Your task to perform on an android device: Open Google Chrome and open the bookmarks view Image 0: 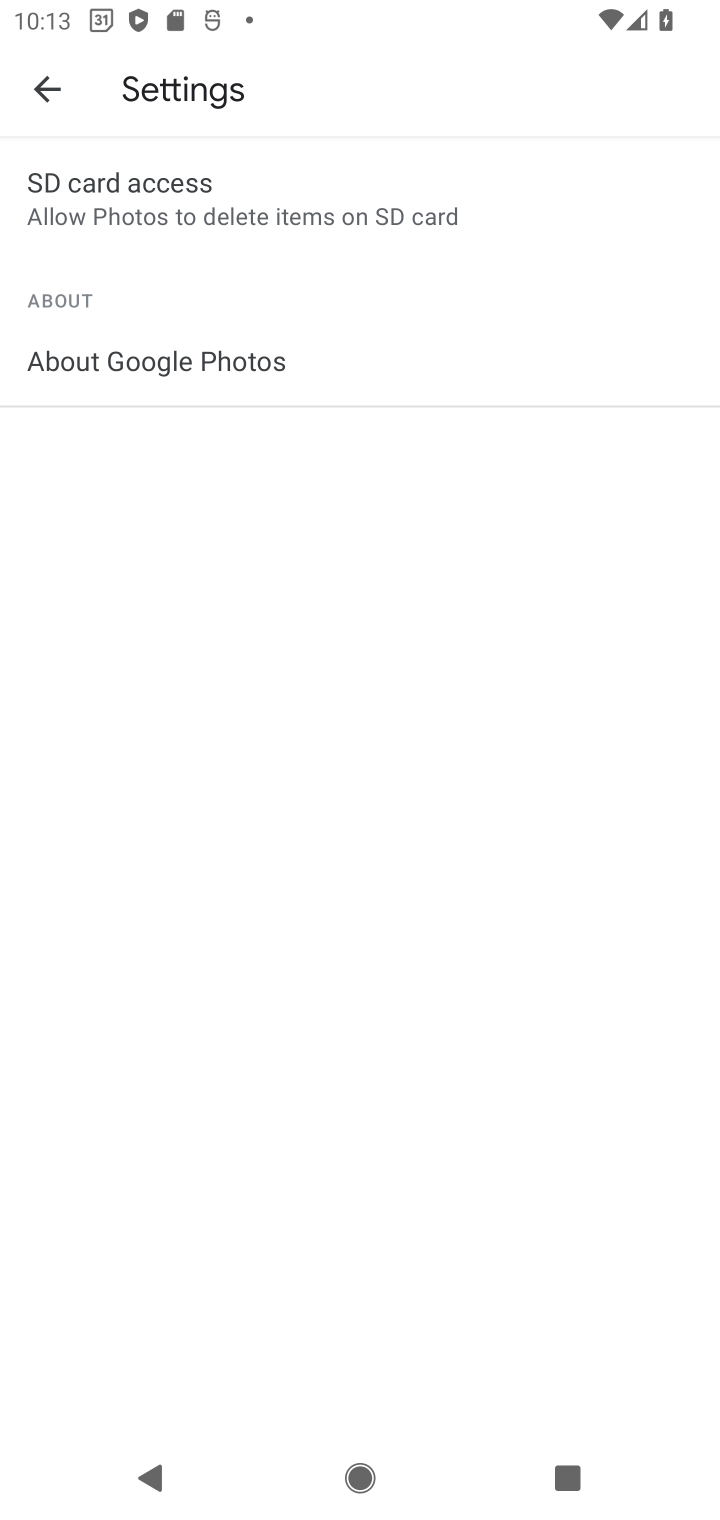
Step 0: press home button
Your task to perform on an android device: Open Google Chrome and open the bookmarks view Image 1: 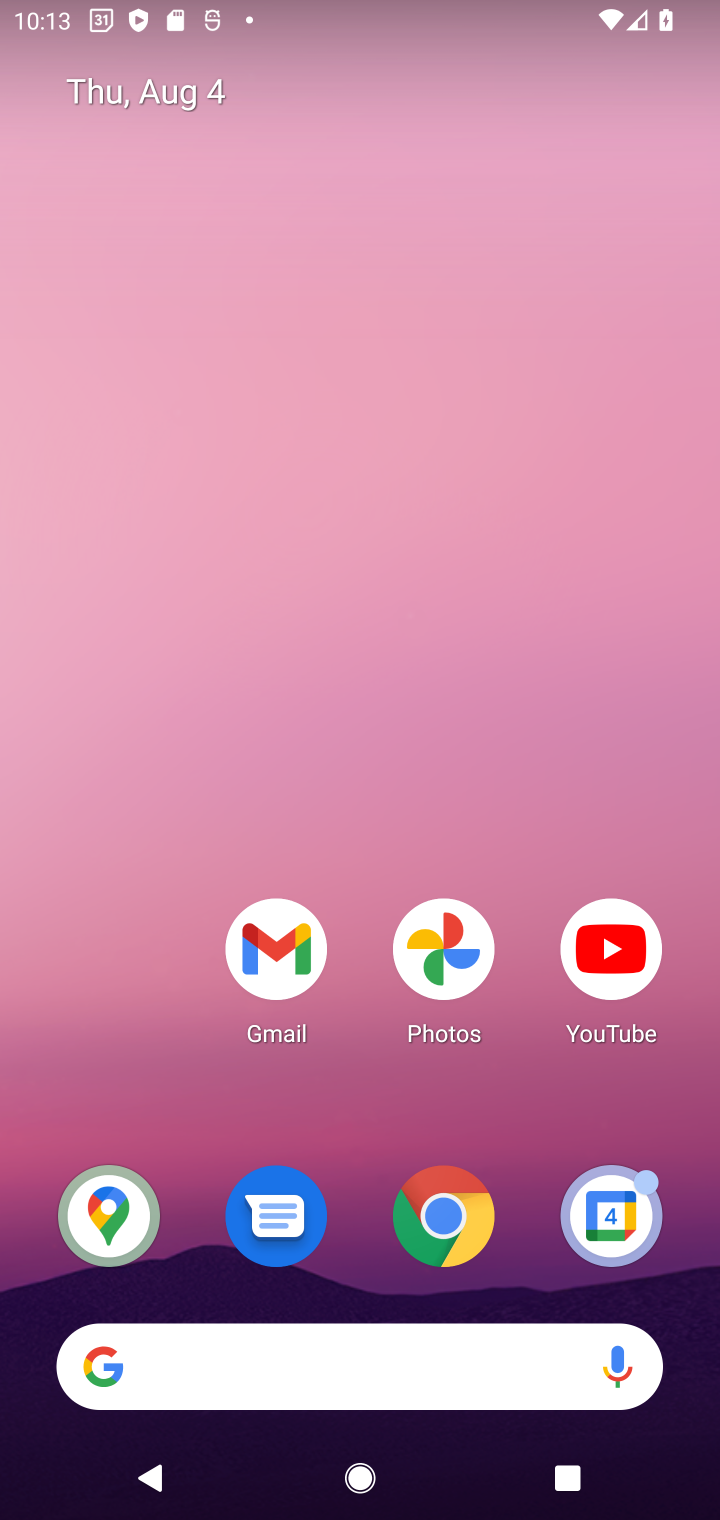
Step 1: click (446, 1221)
Your task to perform on an android device: Open Google Chrome and open the bookmarks view Image 2: 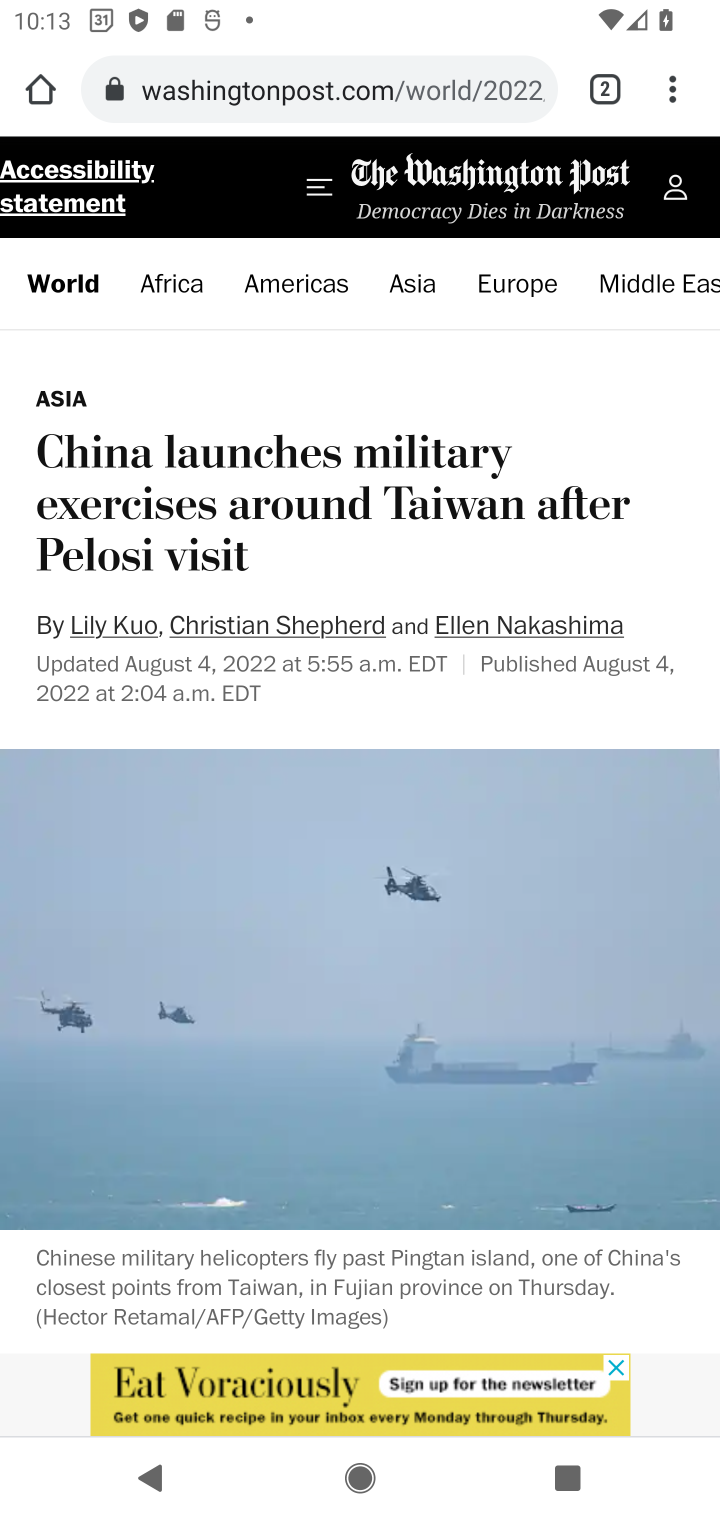
Step 2: click (671, 92)
Your task to perform on an android device: Open Google Chrome and open the bookmarks view Image 3: 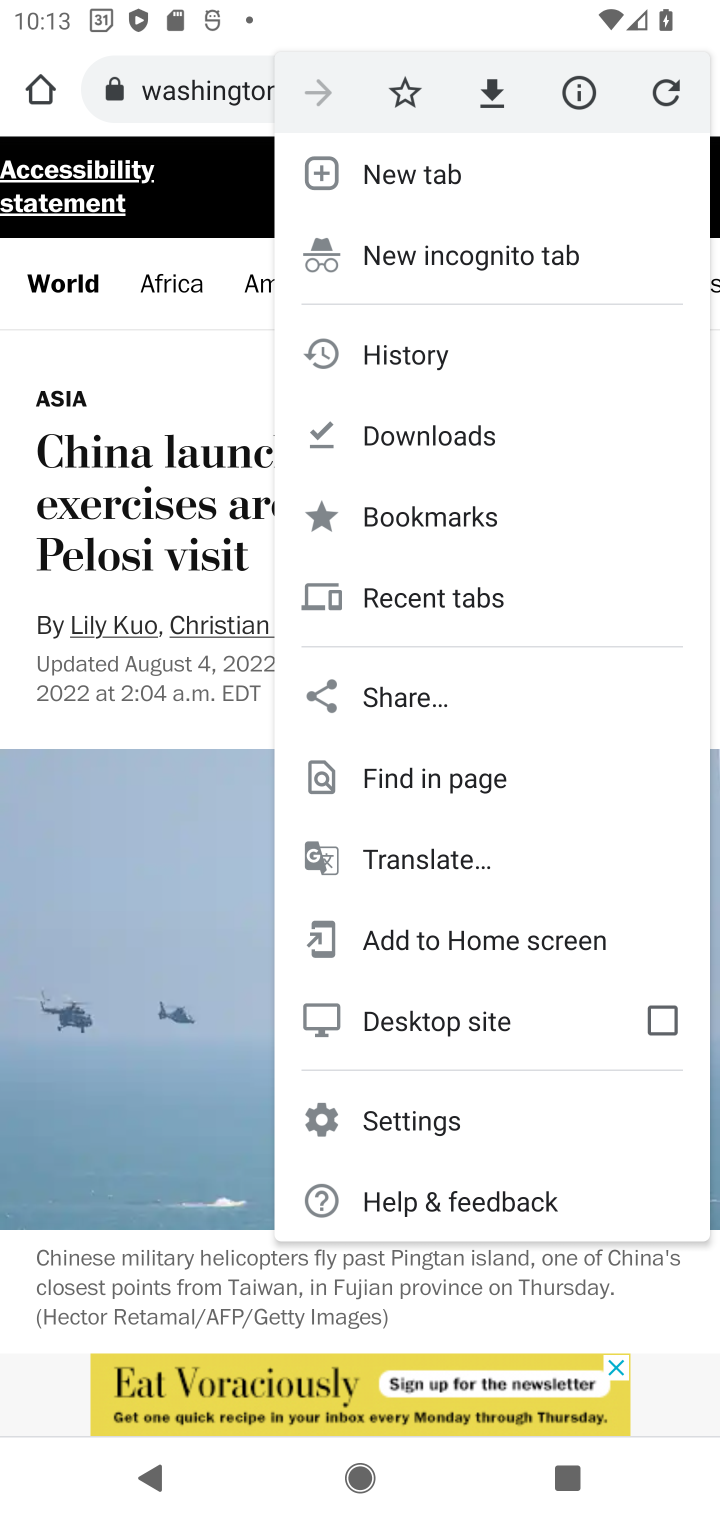
Step 3: click (416, 526)
Your task to perform on an android device: Open Google Chrome and open the bookmarks view Image 4: 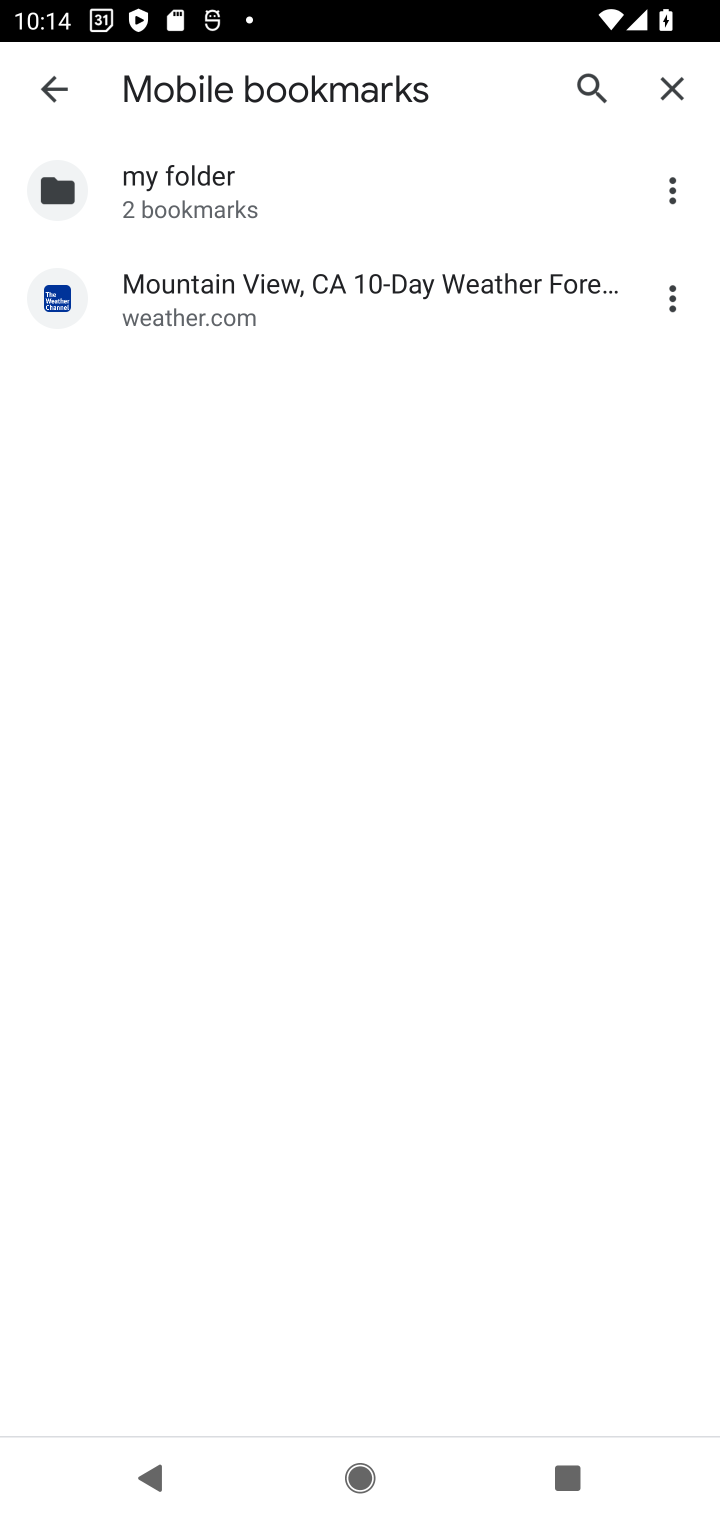
Step 4: task complete